Your task to perform on an android device: Open network settings Image 0: 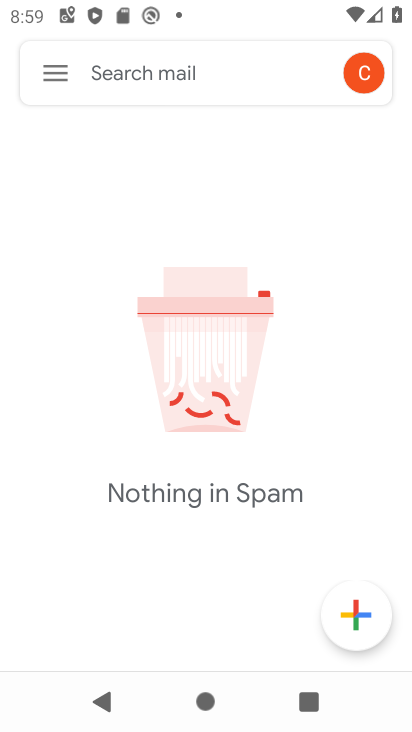
Step 0: press home button
Your task to perform on an android device: Open network settings Image 1: 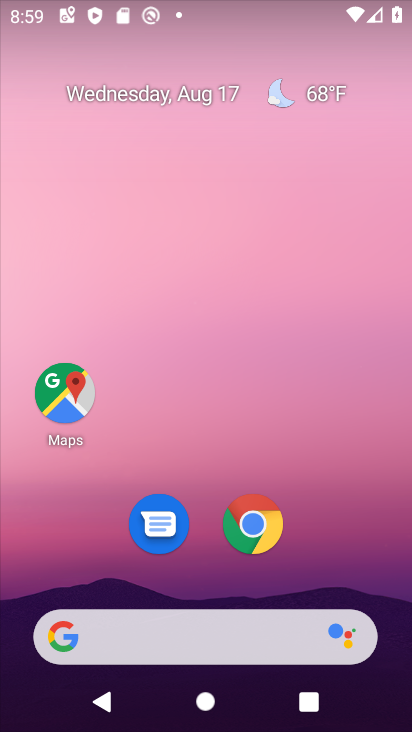
Step 1: drag from (306, 527) to (317, 19)
Your task to perform on an android device: Open network settings Image 2: 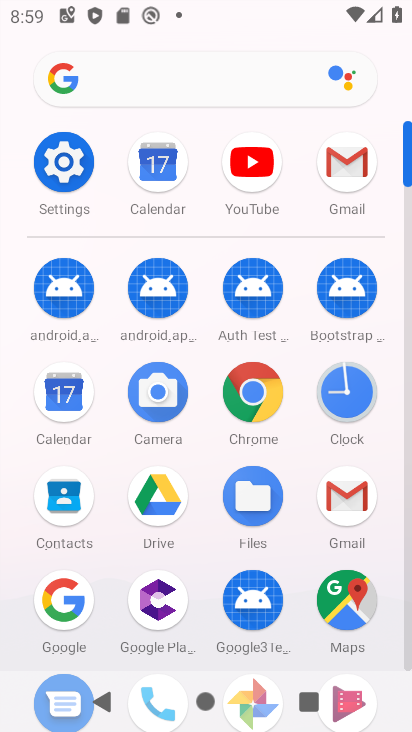
Step 2: click (81, 166)
Your task to perform on an android device: Open network settings Image 3: 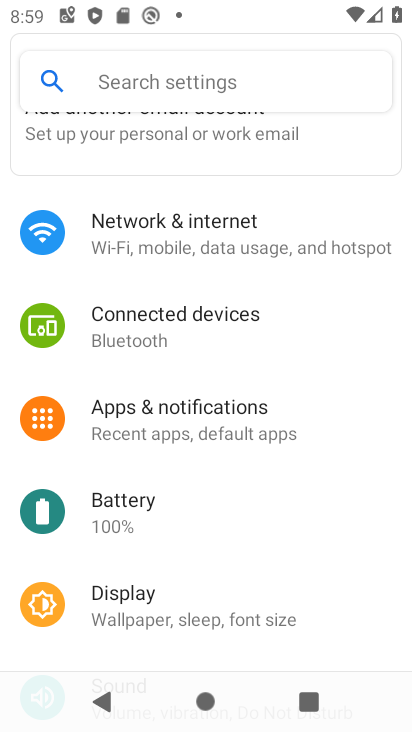
Step 3: click (205, 245)
Your task to perform on an android device: Open network settings Image 4: 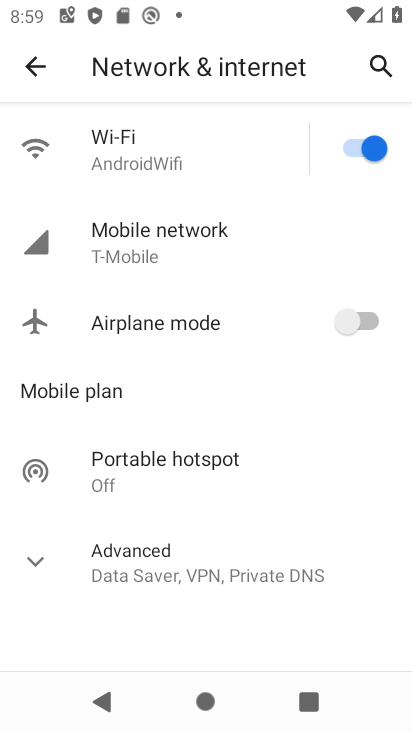
Step 4: task complete